Your task to perform on an android device: change timer sound Image 0: 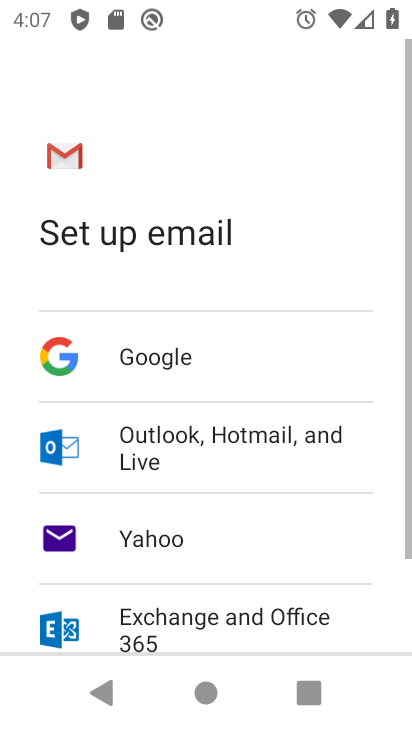
Step 0: press back button
Your task to perform on an android device: change timer sound Image 1: 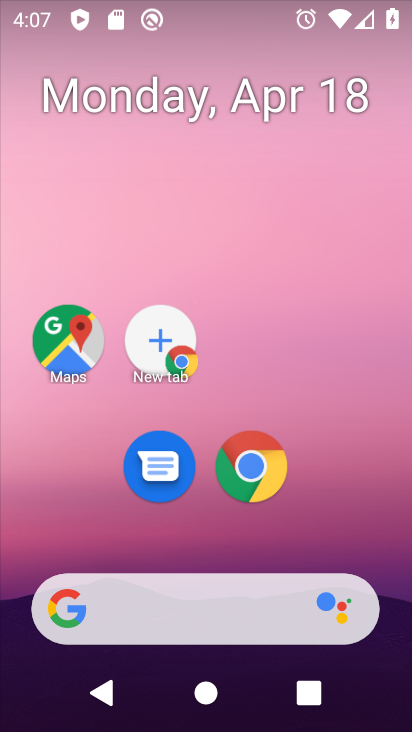
Step 1: drag from (376, 510) to (170, 5)
Your task to perform on an android device: change timer sound Image 2: 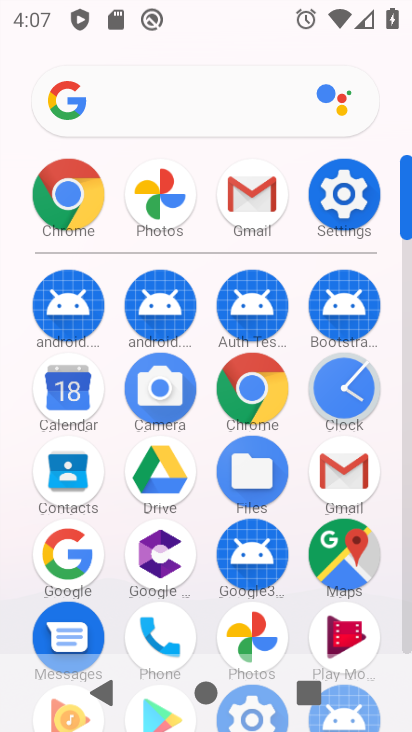
Step 2: click (348, 387)
Your task to perform on an android device: change timer sound Image 3: 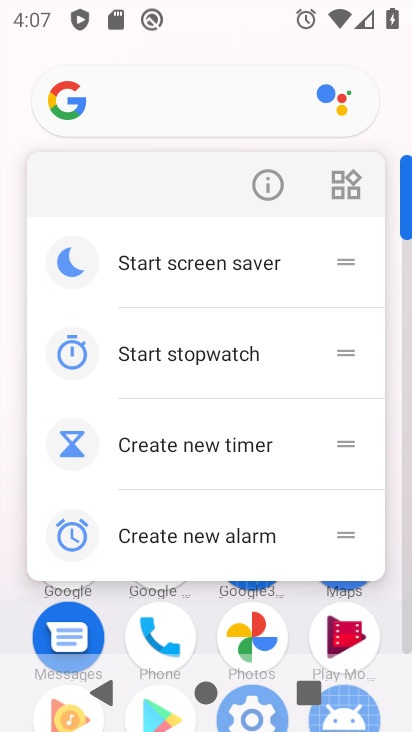
Step 3: click (2, 174)
Your task to perform on an android device: change timer sound Image 4: 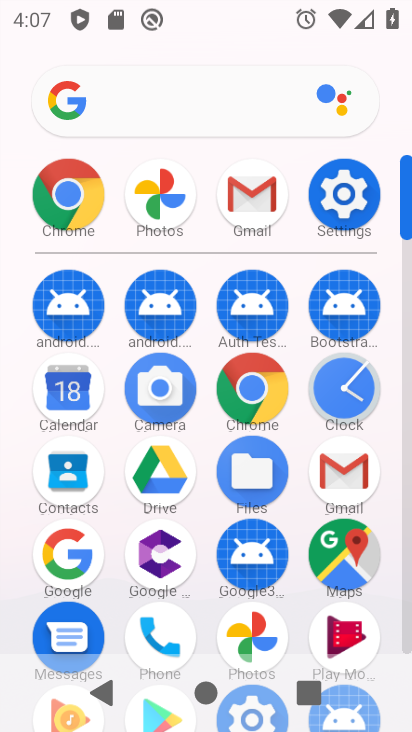
Step 4: click (338, 382)
Your task to perform on an android device: change timer sound Image 5: 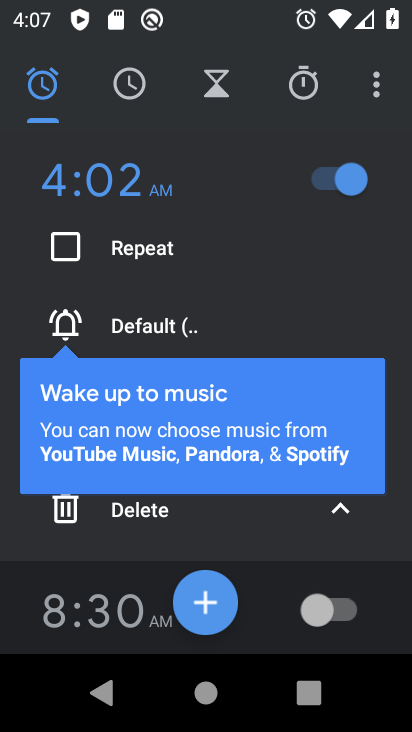
Step 5: click (381, 80)
Your task to perform on an android device: change timer sound Image 6: 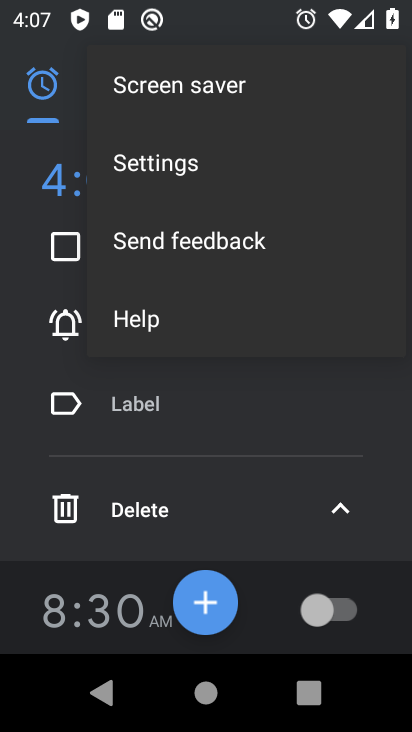
Step 6: click (181, 167)
Your task to perform on an android device: change timer sound Image 7: 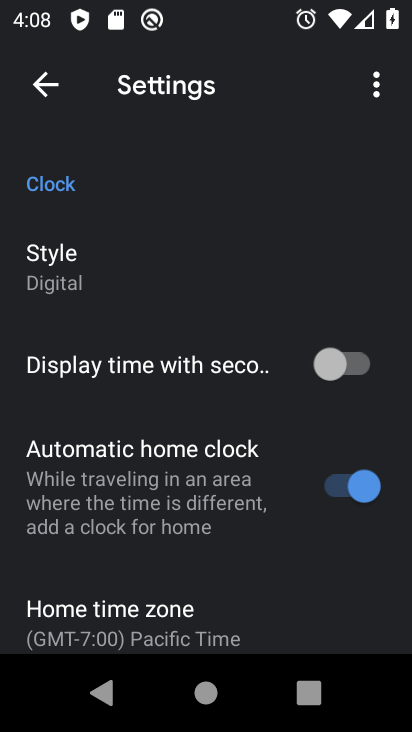
Step 7: drag from (205, 515) to (182, 287)
Your task to perform on an android device: change timer sound Image 8: 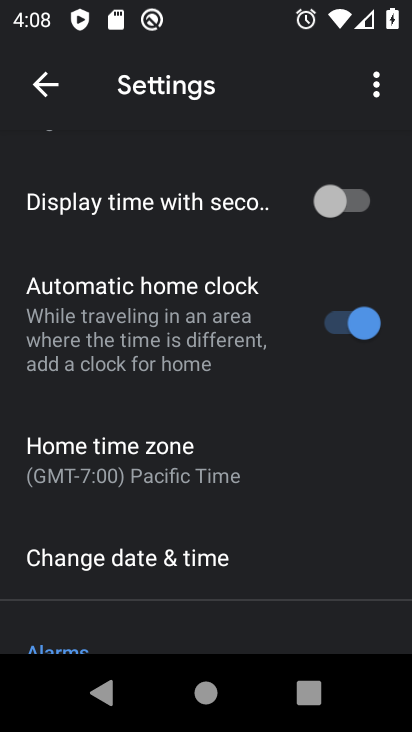
Step 8: drag from (165, 528) to (171, 244)
Your task to perform on an android device: change timer sound Image 9: 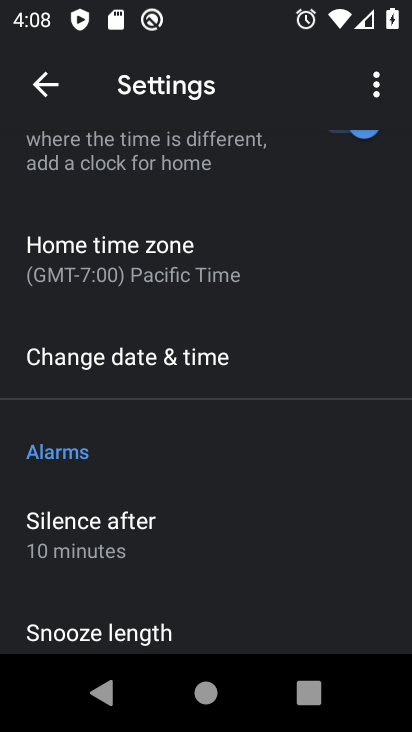
Step 9: drag from (161, 501) to (169, 201)
Your task to perform on an android device: change timer sound Image 10: 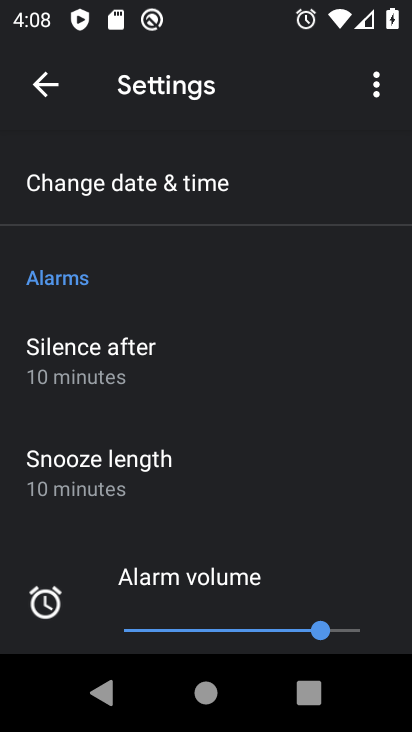
Step 10: drag from (227, 332) to (194, 50)
Your task to perform on an android device: change timer sound Image 11: 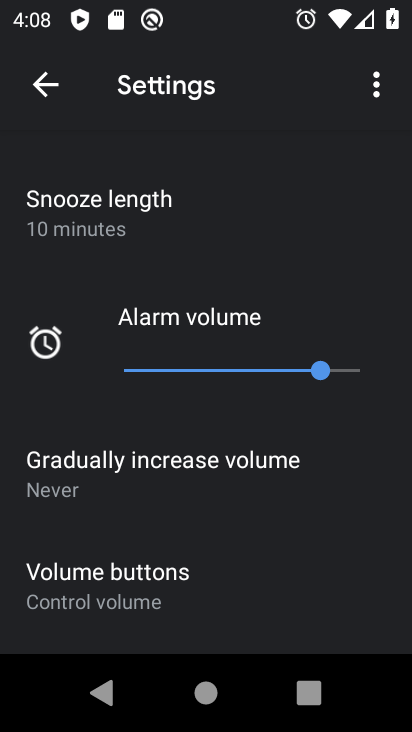
Step 11: drag from (204, 499) to (226, 217)
Your task to perform on an android device: change timer sound Image 12: 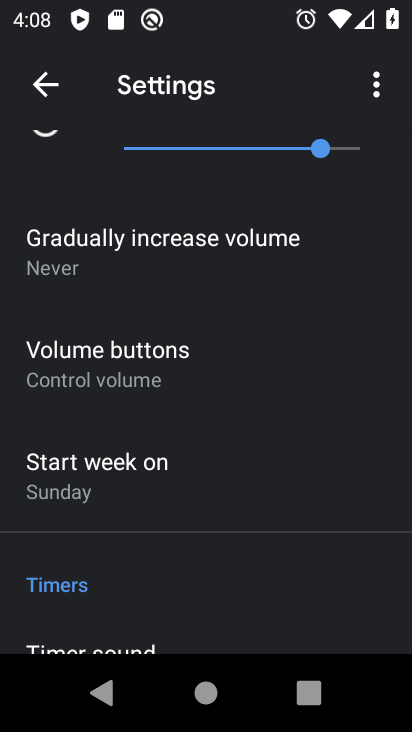
Step 12: drag from (233, 482) to (222, 77)
Your task to perform on an android device: change timer sound Image 13: 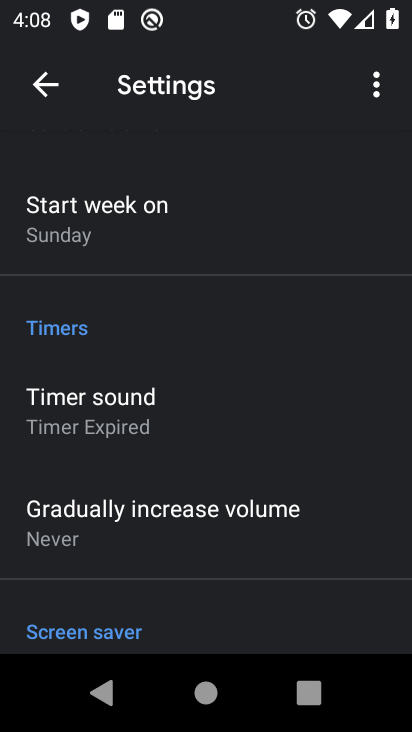
Step 13: click (180, 424)
Your task to perform on an android device: change timer sound Image 14: 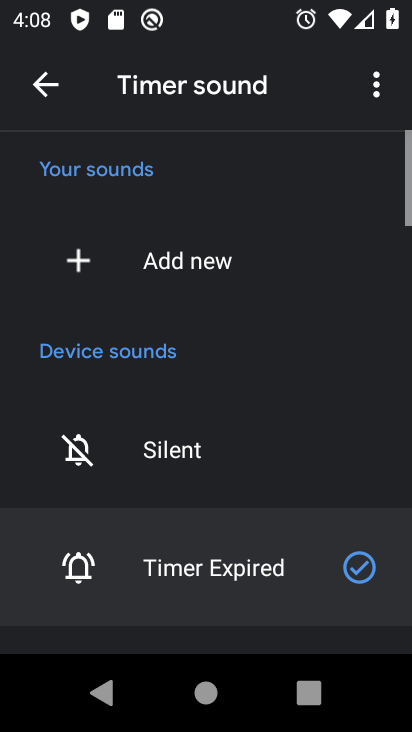
Step 14: drag from (211, 535) to (220, 343)
Your task to perform on an android device: change timer sound Image 15: 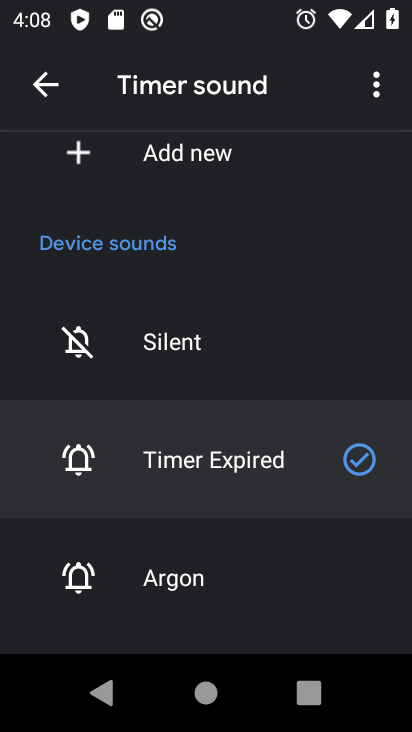
Step 15: drag from (217, 583) to (213, 244)
Your task to perform on an android device: change timer sound Image 16: 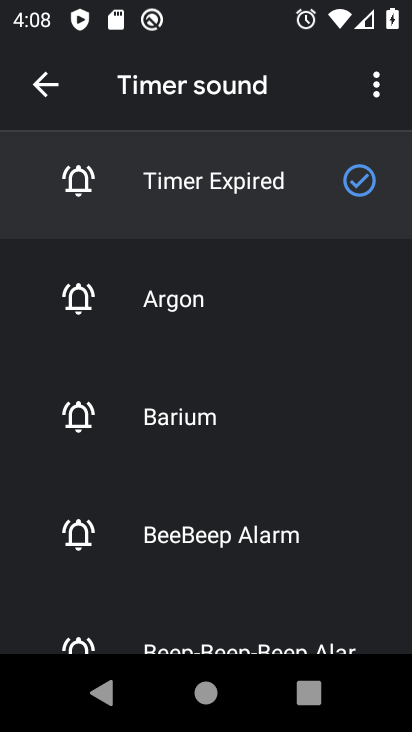
Step 16: click (184, 423)
Your task to perform on an android device: change timer sound Image 17: 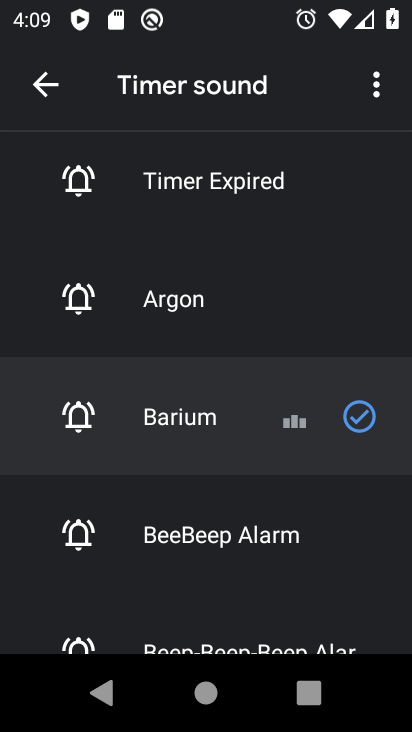
Step 17: task complete